Your task to perform on an android device: Search for vegetarian restaurants on Maps Image 0: 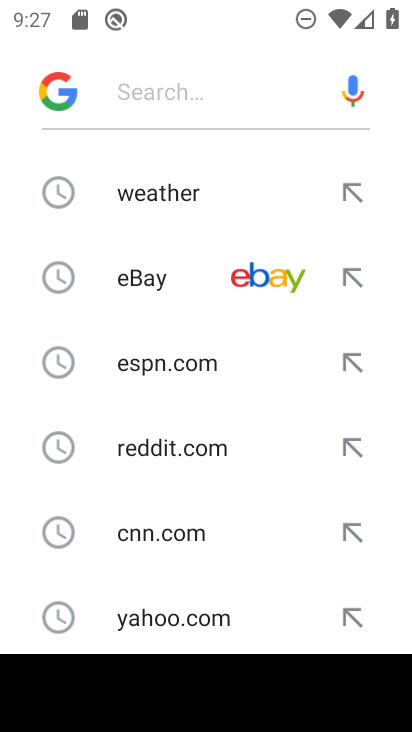
Step 0: press home button
Your task to perform on an android device: Search for vegetarian restaurants on Maps Image 1: 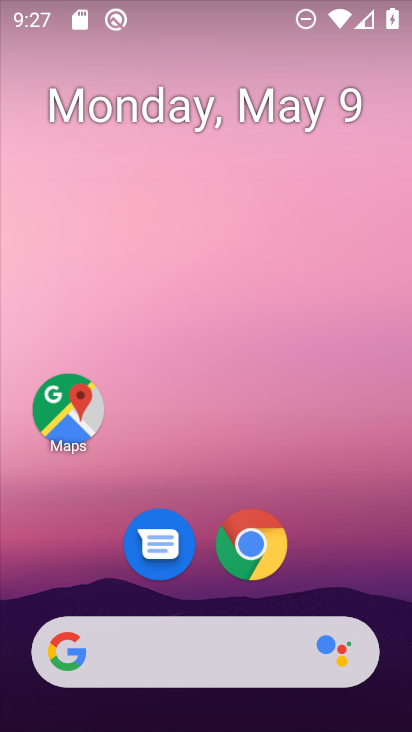
Step 1: click (66, 411)
Your task to perform on an android device: Search for vegetarian restaurants on Maps Image 2: 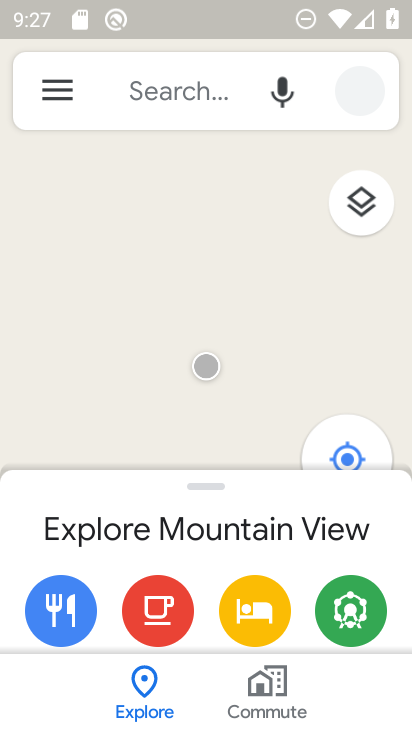
Step 2: click (167, 104)
Your task to perform on an android device: Search for vegetarian restaurants on Maps Image 3: 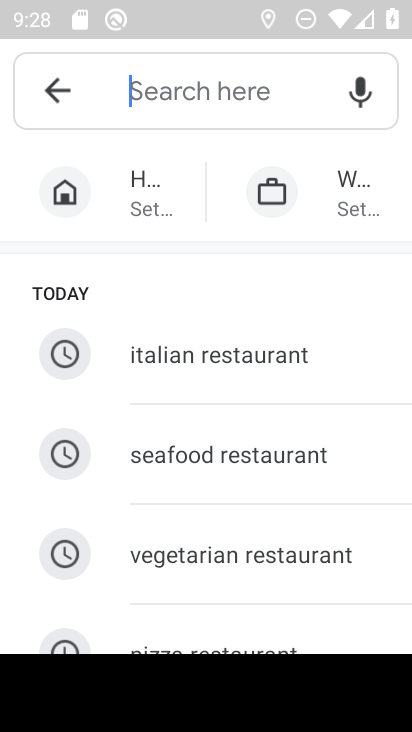
Step 3: click (188, 553)
Your task to perform on an android device: Search for vegetarian restaurants on Maps Image 4: 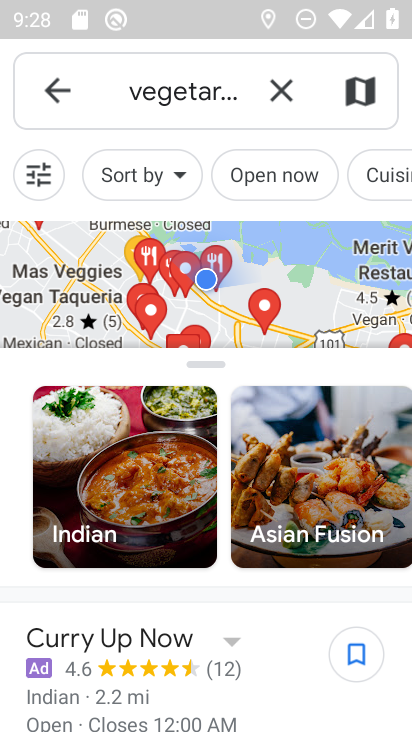
Step 4: task complete